Your task to perform on an android device: Open CNN.com Image 0: 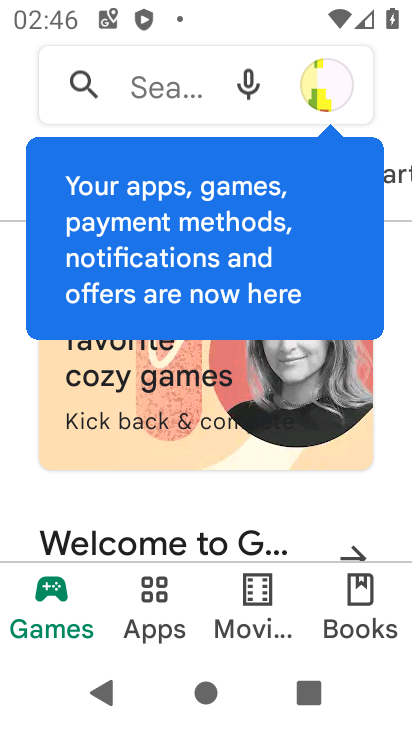
Step 0: press home button
Your task to perform on an android device: Open CNN.com Image 1: 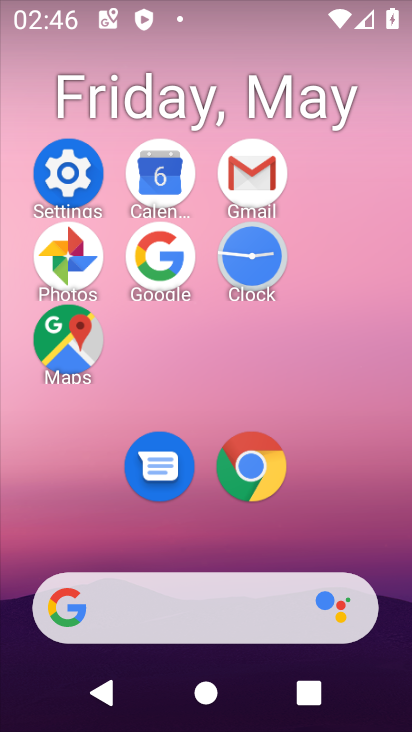
Step 1: click (265, 474)
Your task to perform on an android device: Open CNN.com Image 2: 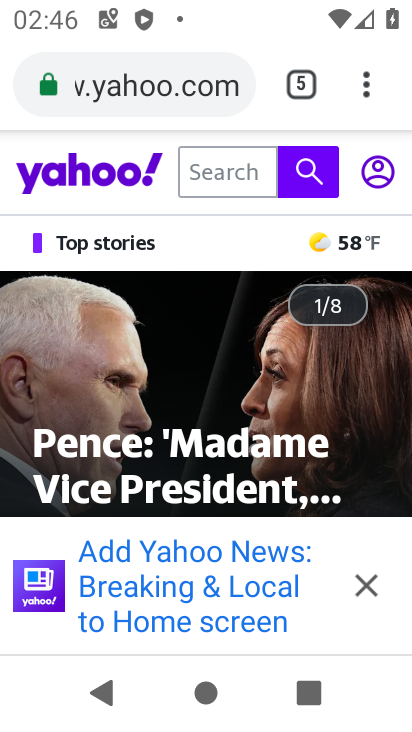
Step 2: click (300, 84)
Your task to perform on an android device: Open CNN.com Image 3: 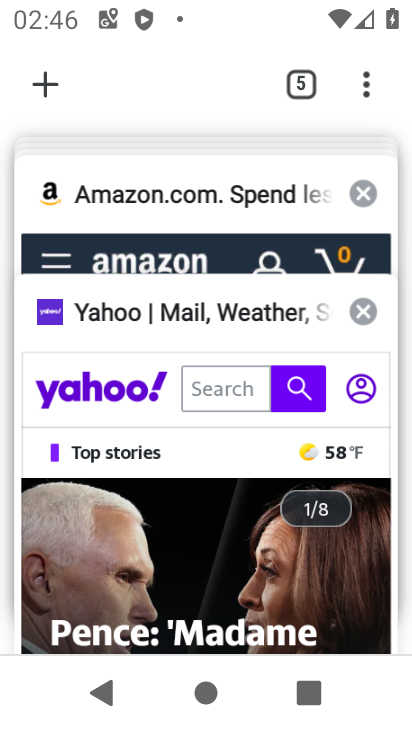
Step 3: drag from (203, 195) to (234, 440)
Your task to perform on an android device: Open CNN.com Image 4: 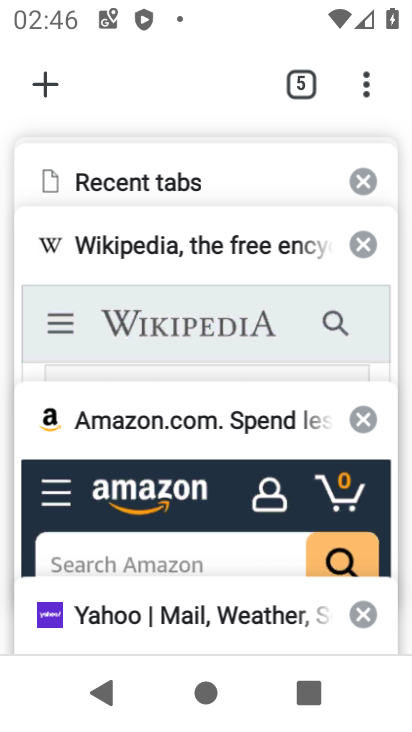
Step 4: drag from (180, 184) to (193, 395)
Your task to perform on an android device: Open CNN.com Image 5: 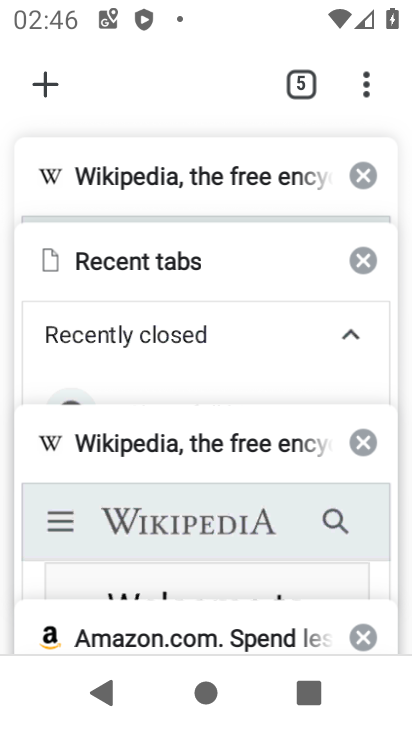
Step 5: click (58, 88)
Your task to perform on an android device: Open CNN.com Image 6: 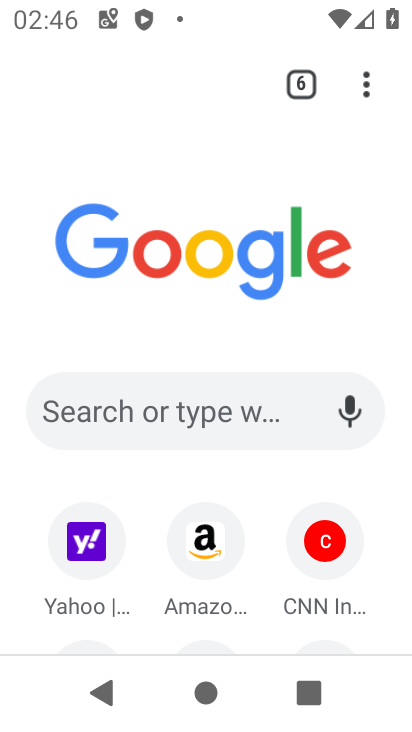
Step 6: click (177, 391)
Your task to perform on an android device: Open CNN.com Image 7: 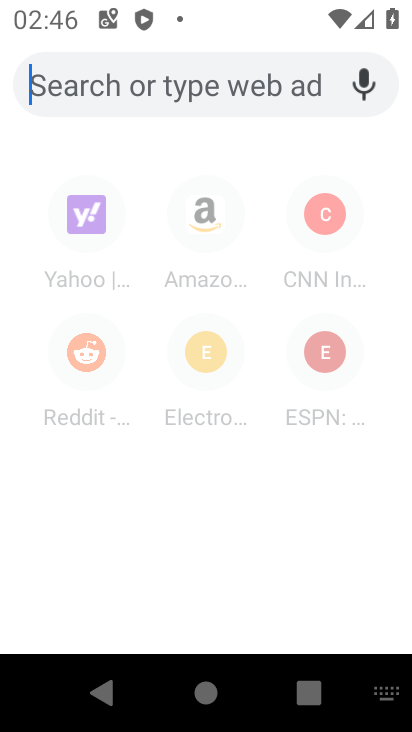
Step 7: click (314, 217)
Your task to perform on an android device: Open CNN.com Image 8: 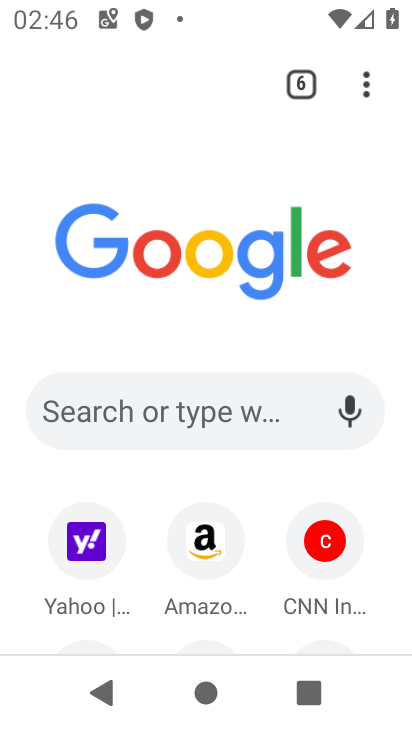
Step 8: click (326, 544)
Your task to perform on an android device: Open CNN.com Image 9: 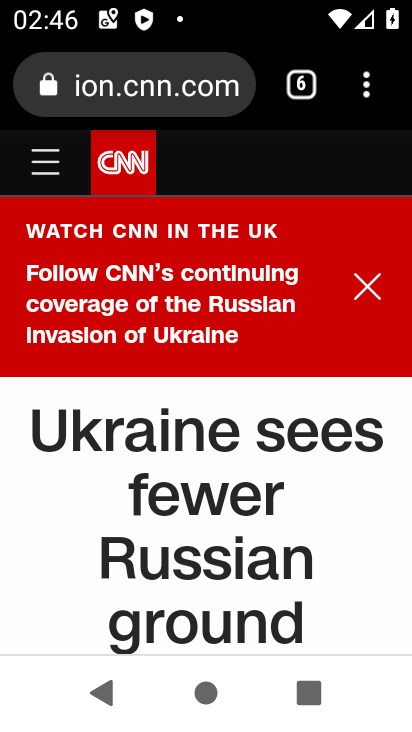
Step 9: task complete